Your task to perform on an android device: Find coffee shops on Maps Image 0: 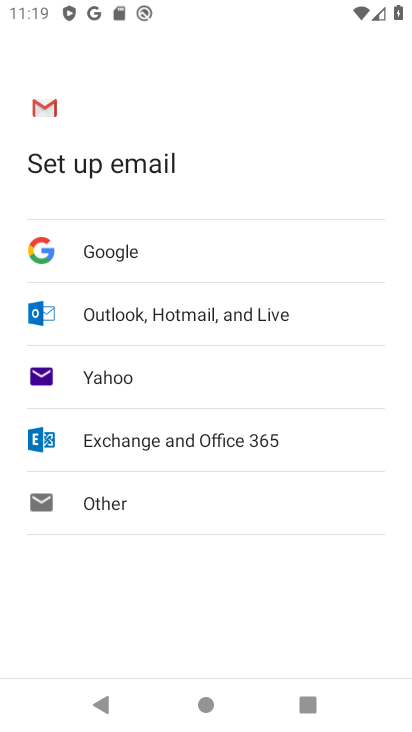
Step 0: press back button
Your task to perform on an android device: Find coffee shops on Maps Image 1: 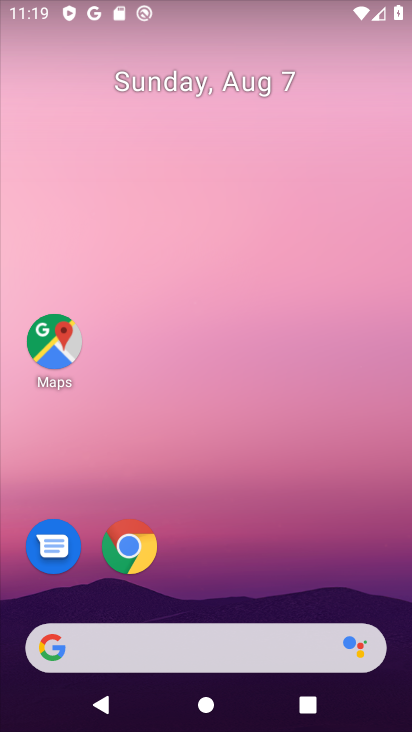
Step 1: drag from (249, 577) to (226, 176)
Your task to perform on an android device: Find coffee shops on Maps Image 2: 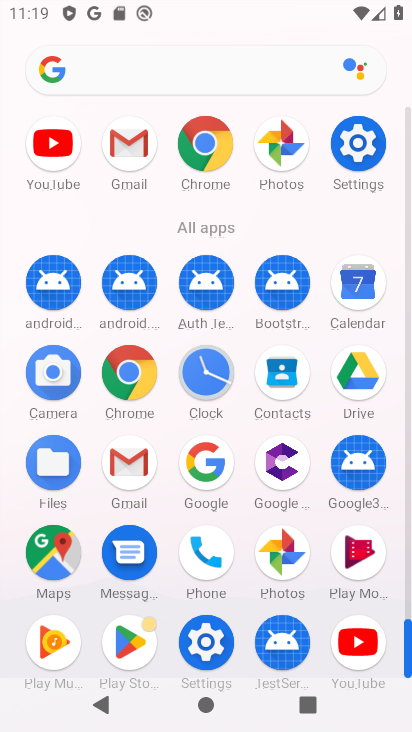
Step 2: click (65, 547)
Your task to perform on an android device: Find coffee shops on Maps Image 3: 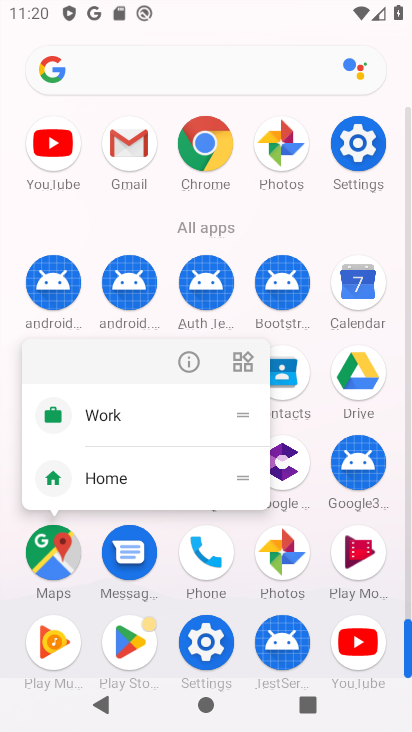
Step 3: click (65, 545)
Your task to perform on an android device: Find coffee shops on Maps Image 4: 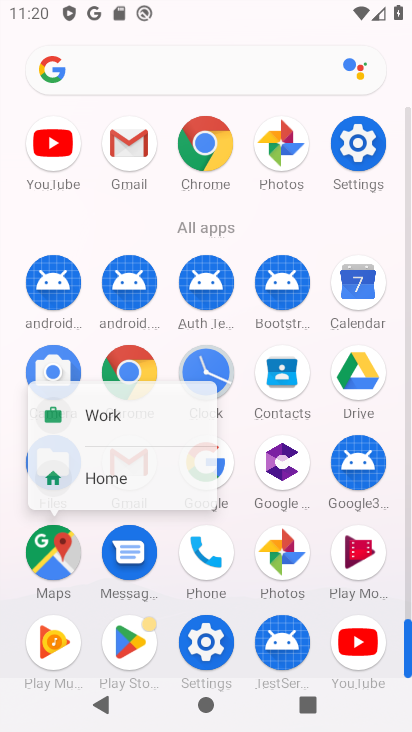
Step 4: click (66, 546)
Your task to perform on an android device: Find coffee shops on Maps Image 5: 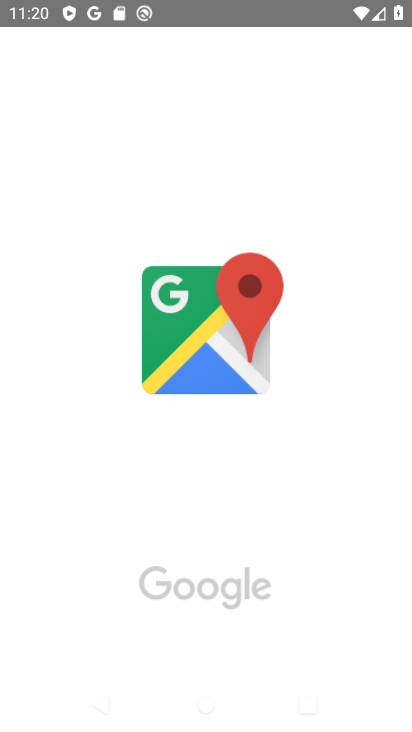
Step 5: click (231, 349)
Your task to perform on an android device: Find coffee shops on Maps Image 6: 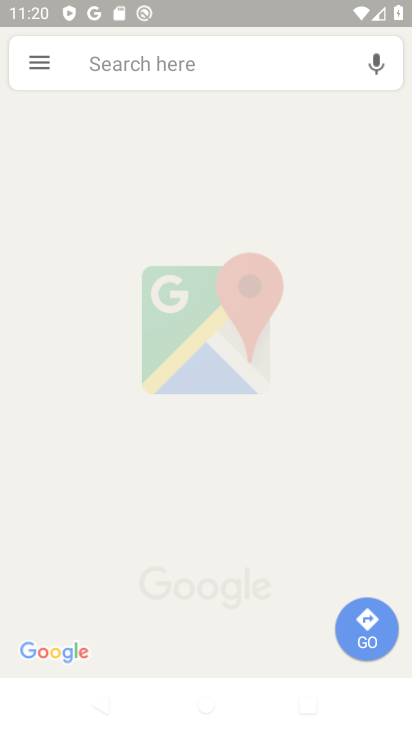
Step 6: click (213, 337)
Your task to perform on an android device: Find coffee shops on Maps Image 7: 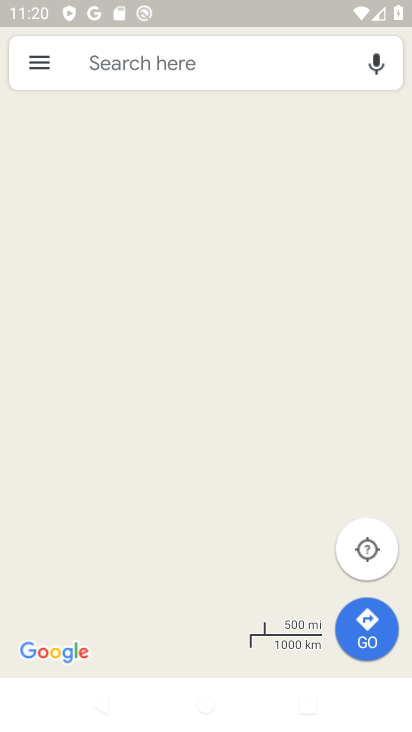
Step 7: click (40, 65)
Your task to perform on an android device: Find coffee shops on Maps Image 8: 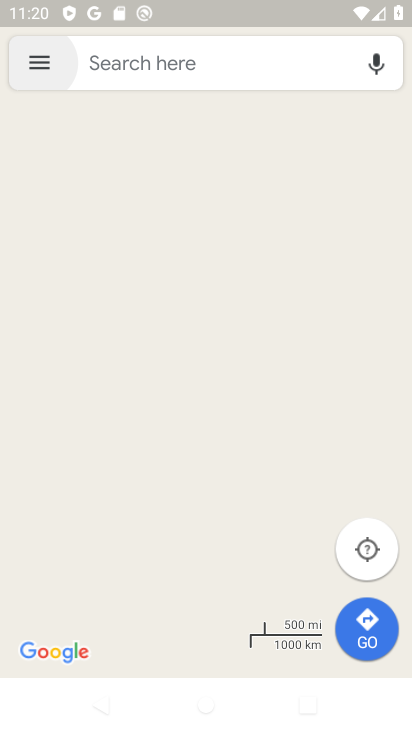
Step 8: click (105, 57)
Your task to perform on an android device: Find coffee shops on Maps Image 9: 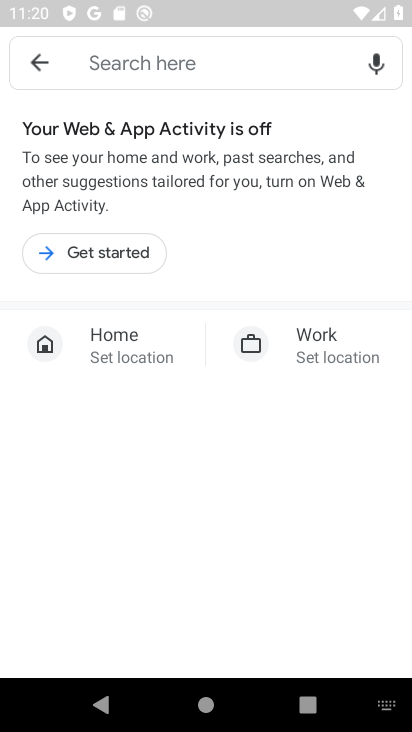
Step 9: click (95, 60)
Your task to perform on an android device: Find coffee shops on Maps Image 10: 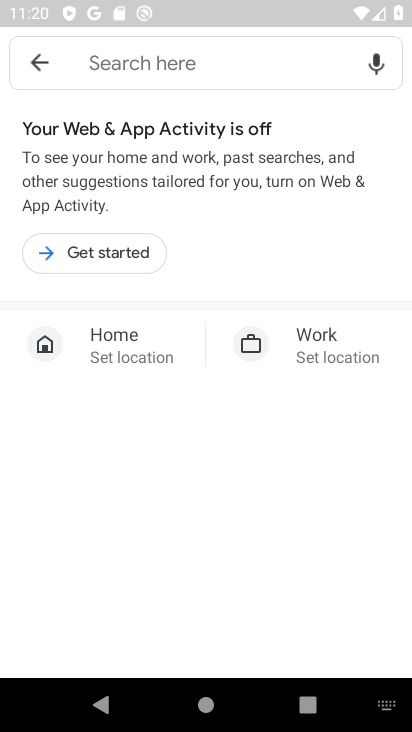
Step 10: click (95, 60)
Your task to perform on an android device: Find coffee shops on Maps Image 11: 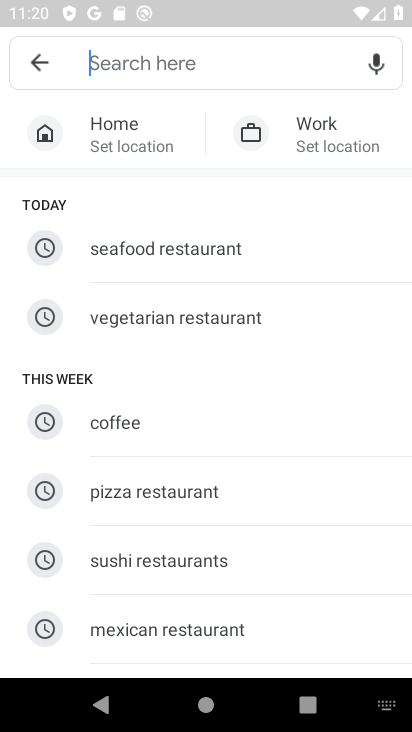
Step 11: click (124, 422)
Your task to perform on an android device: Find coffee shops on Maps Image 12: 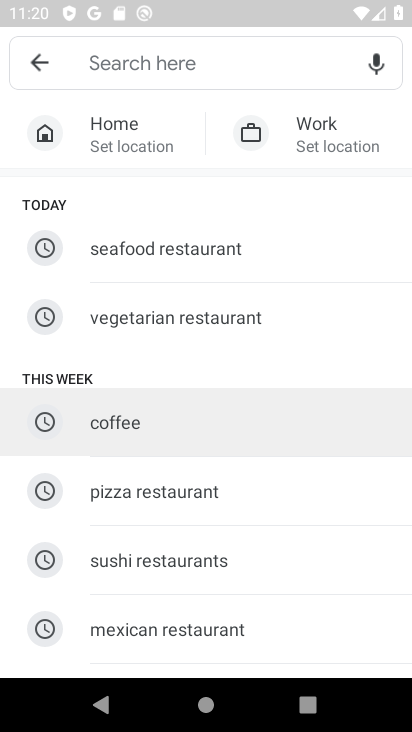
Step 12: task complete